Your task to perform on an android device: Go to Google maps Image 0: 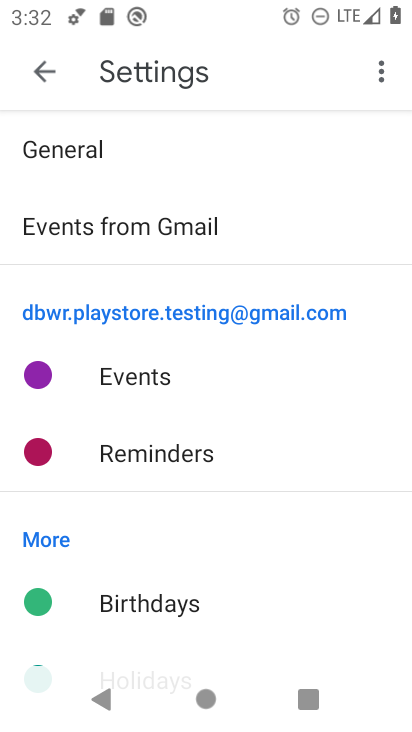
Step 0: press home button
Your task to perform on an android device: Go to Google maps Image 1: 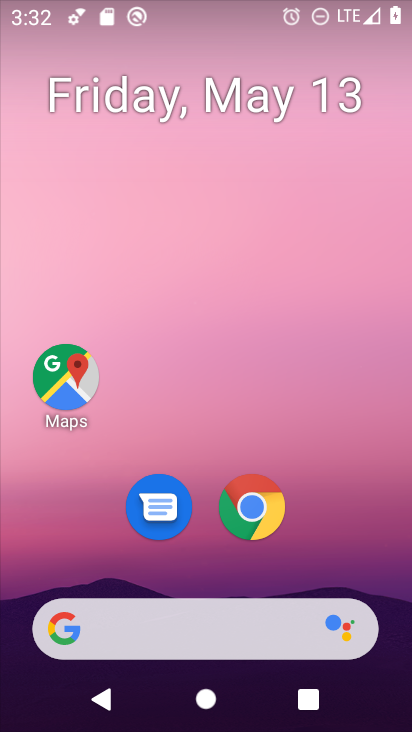
Step 1: click (65, 383)
Your task to perform on an android device: Go to Google maps Image 2: 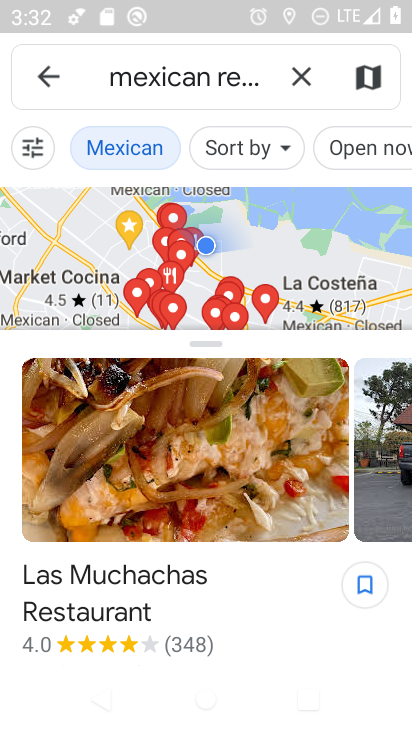
Step 2: task complete